Your task to perform on an android device: open wifi settings Image 0: 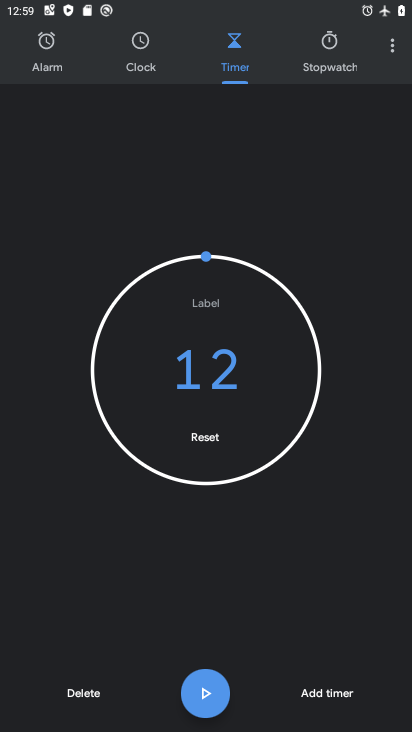
Step 0: press home button
Your task to perform on an android device: open wifi settings Image 1: 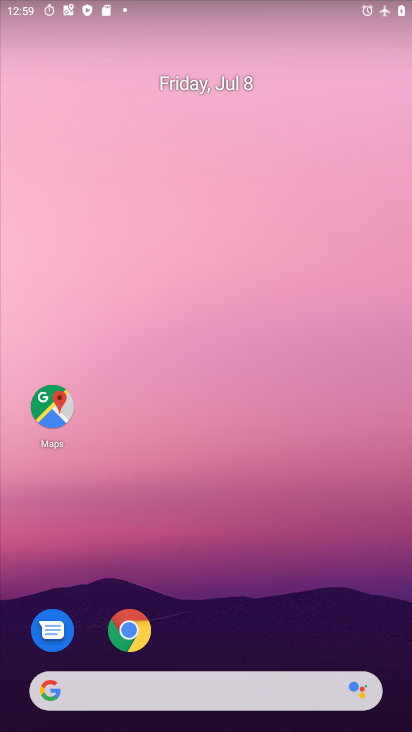
Step 1: drag from (201, 647) to (224, 135)
Your task to perform on an android device: open wifi settings Image 2: 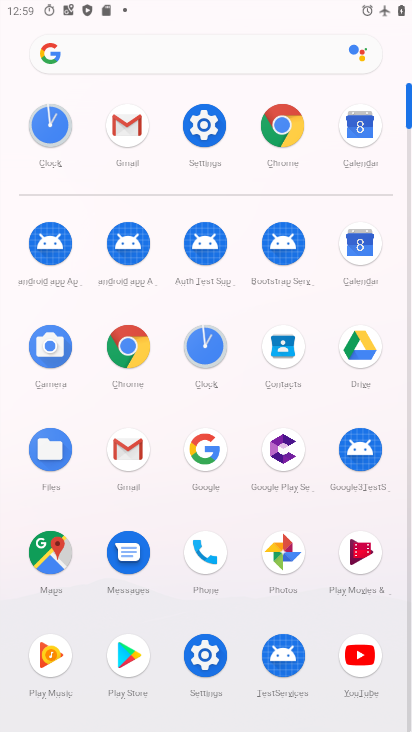
Step 2: click (213, 142)
Your task to perform on an android device: open wifi settings Image 3: 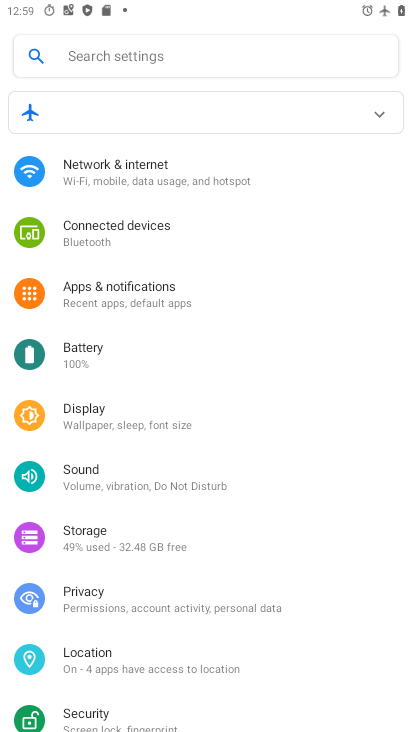
Step 3: click (111, 186)
Your task to perform on an android device: open wifi settings Image 4: 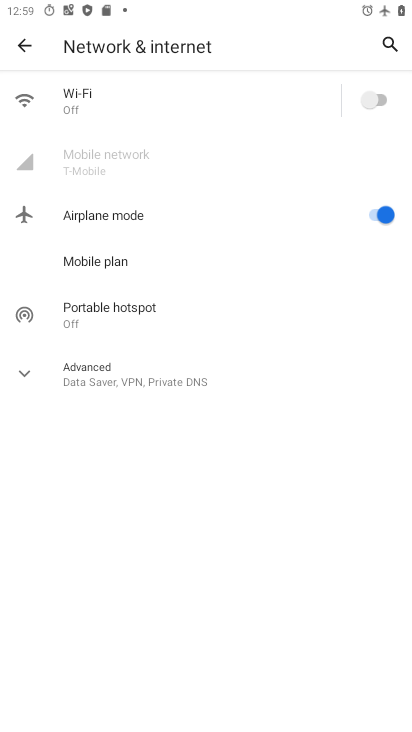
Step 4: click (89, 118)
Your task to perform on an android device: open wifi settings Image 5: 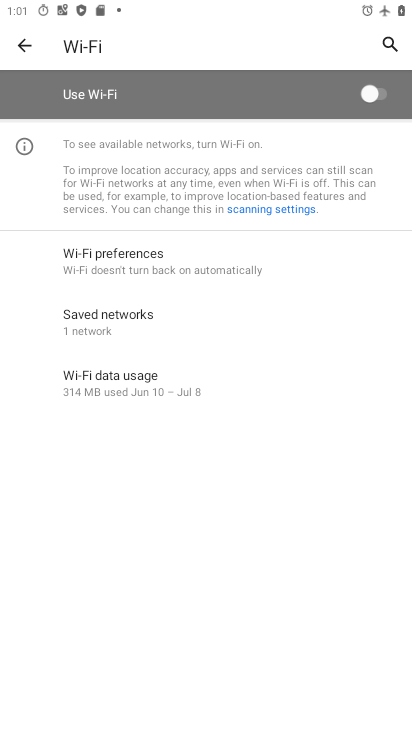
Step 5: task complete